Your task to perform on an android device: What's the weather going to be tomorrow? Image 0: 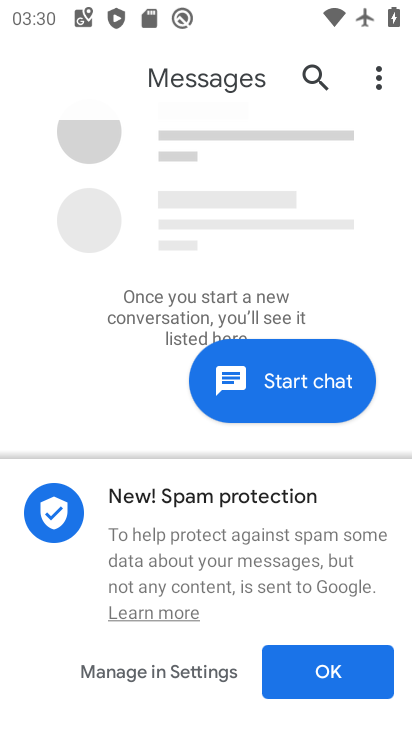
Step 0: press home button
Your task to perform on an android device: What's the weather going to be tomorrow? Image 1: 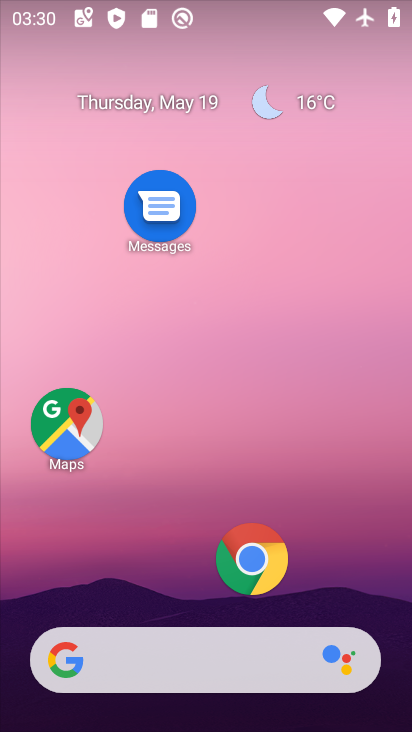
Step 1: drag from (193, 590) to (238, 271)
Your task to perform on an android device: What's the weather going to be tomorrow? Image 2: 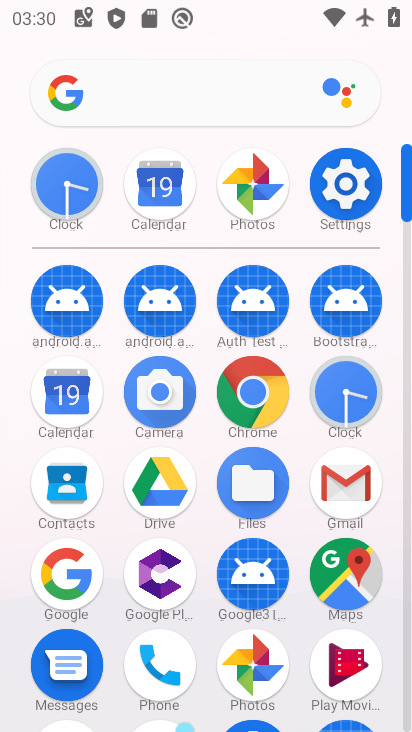
Step 2: click (65, 582)
Your task to perform on an android device: What's the weather going to be tomorrow? Image 3: 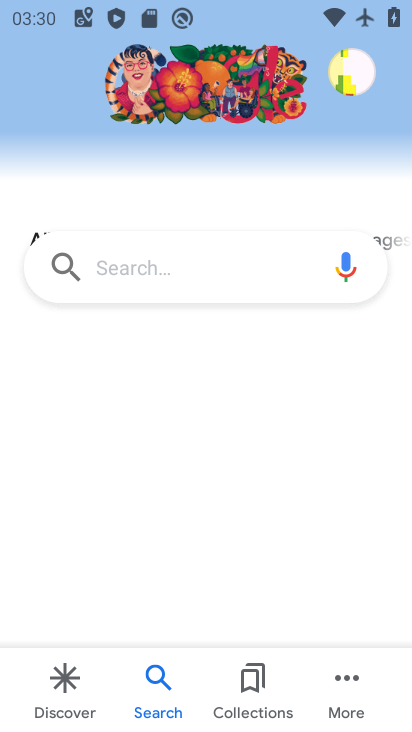
Step 3: click (185, 264)
Your task to perform on an android device: What's the weather going to be tomorrow? Image 4: 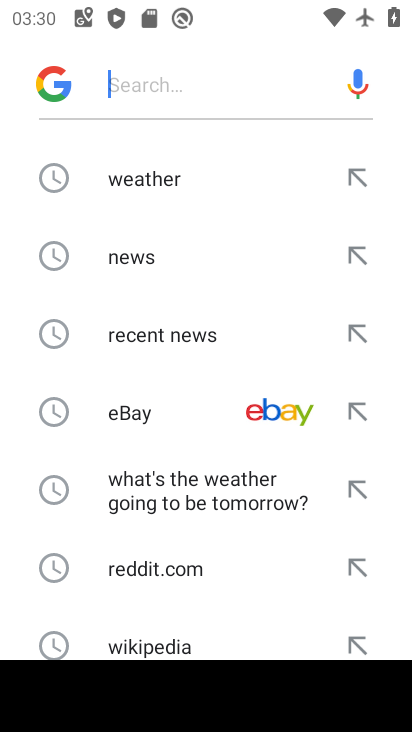
Step 4: click (154, 195)
Your task to perform on an android device: What's the weather going to be tomorrow? Image 5: 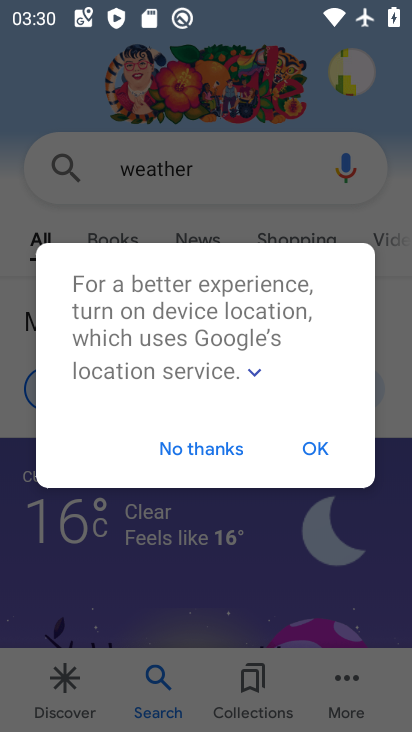
Step 5: click (326, 441)
Your task to perform on an android device: What's the weather going to be tomorrow? Image 6: 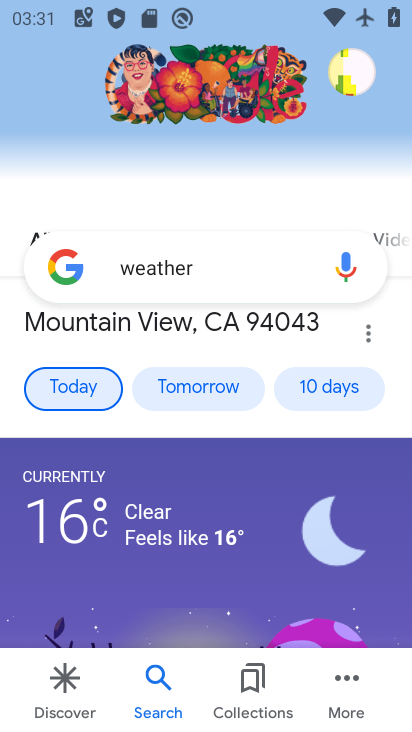
Step 6: click (199, 389)
Your task to perform on an android device: What's the weather going to be tomorrow? Image 7: 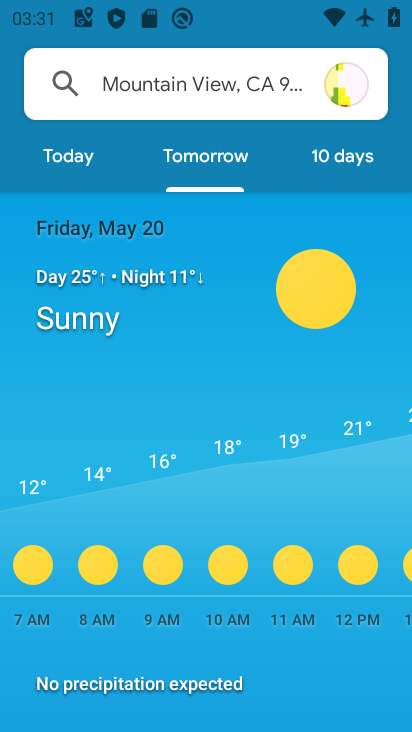
Step 7: task complete